Your task to perform on an android device: allow cookies in the chrome app Image 0: 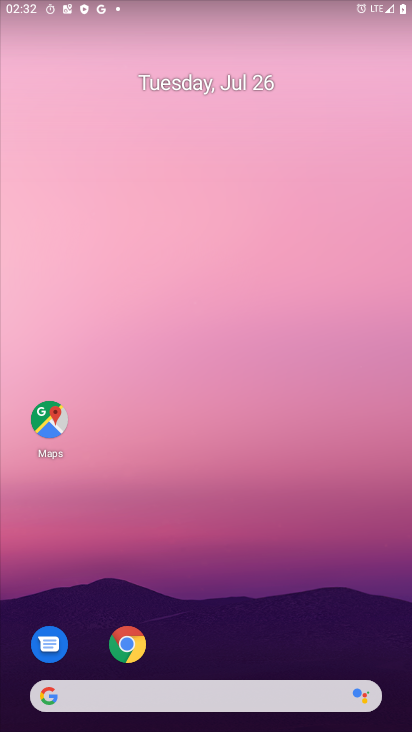
Step 0: click (124, 644)
Your task to perform on an android device: allow cookies in the chrome app Image 1: 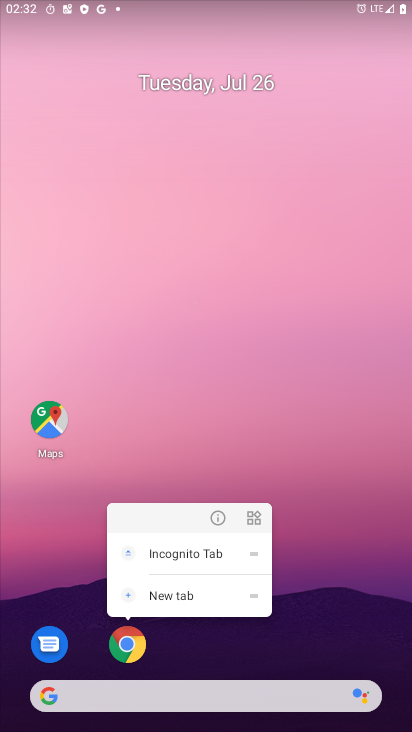
Step 1: click (125, 646)
Your task to perform on an android device: allow cookies in the chrome app Image 2: 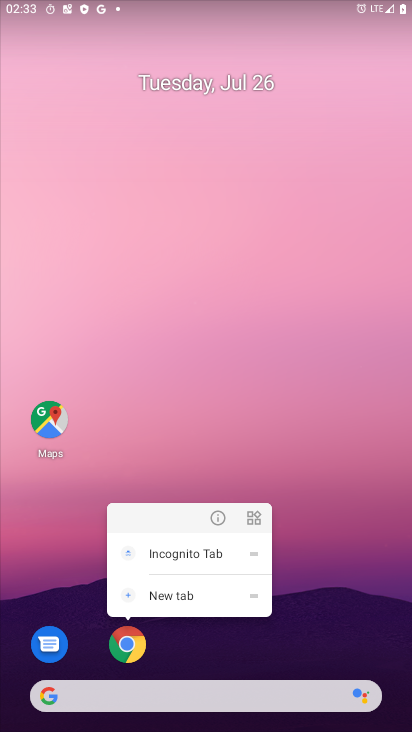
Step 2: click (131, 655)
Your task to perform on an android device: allow cookies in the chrome app Image 3: 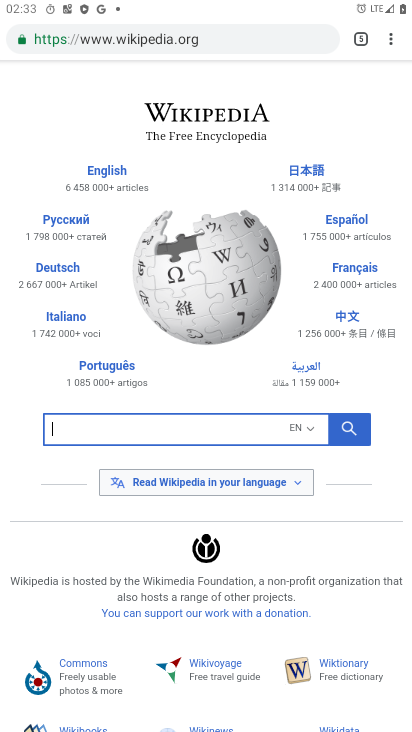
Step 3: click (398, 45)
Your task to perform on an android device: allow cookies in the chrome app Image 4: 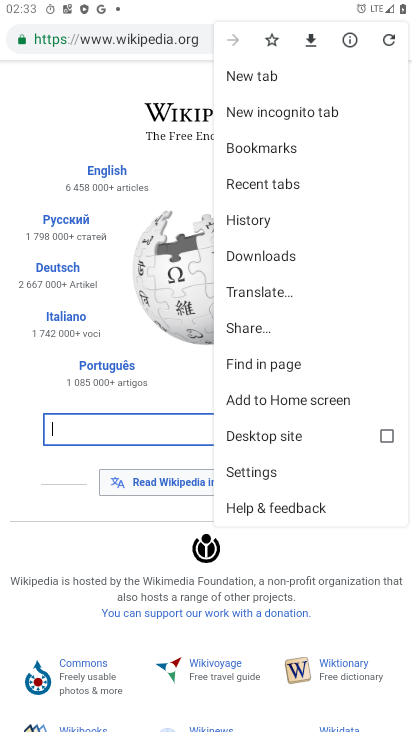
Step 4: click (265, 469)
Your task to perform on an android device: allow cookies in the chrome app Image 5: 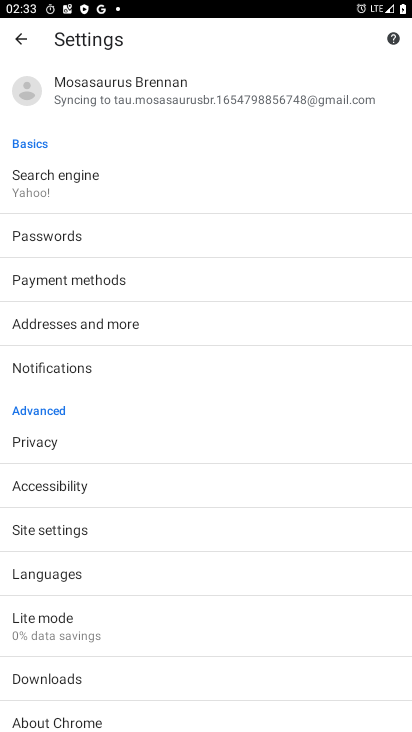
Step 5: drag from (176, 637) to (168, 416)
Your task to perform on an android device: allow cookies in the chrome app Image 6: 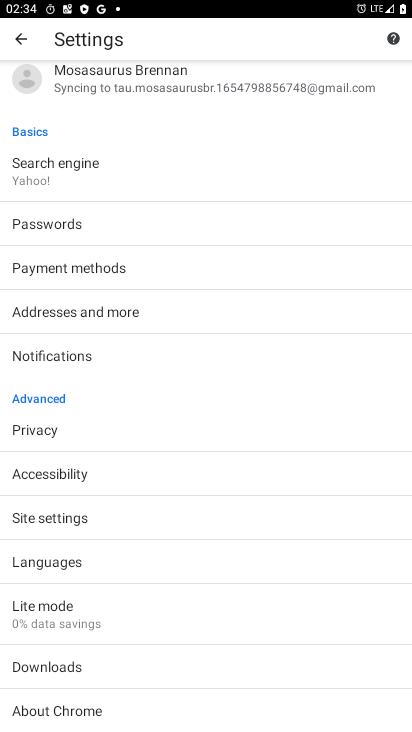
Step 6: click (42, 522)
Your task to perform on an android device: allow cookies in the chrome app Image 7: 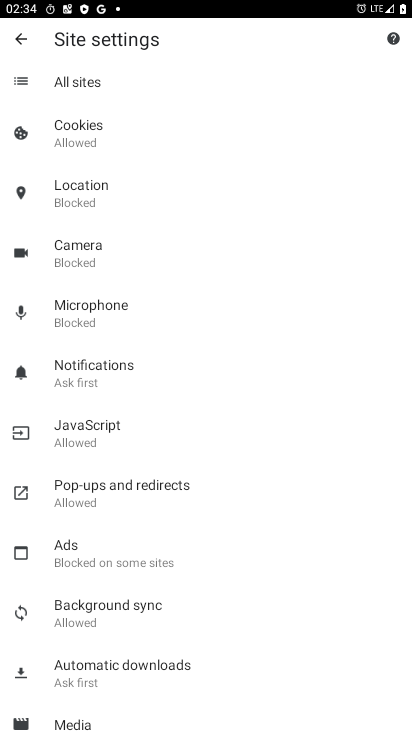
Step 7: click (71, 134)
Your task to perform on an android device: allow cookies in the chrome app Image 8: 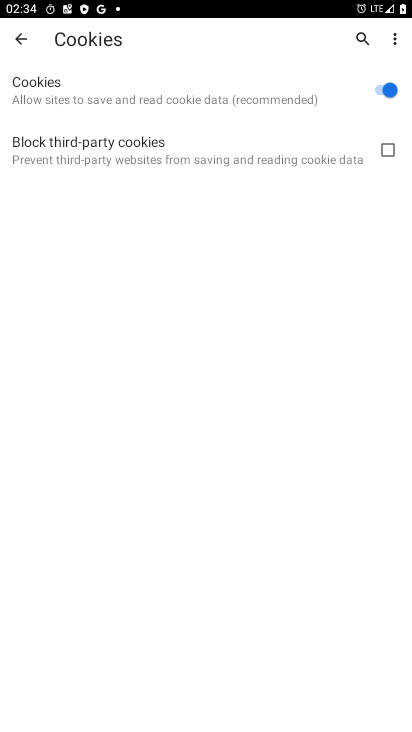
Step 8: task complete